Your task to perform on an android device: What is the news today? Image 0: 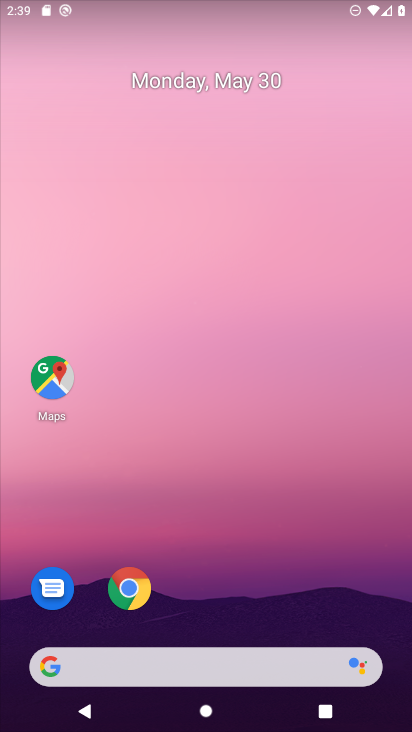
Step 0: drag from (248, 620) to (242, 244)
Your task to perform on an android device: What is the news today? Image 1: 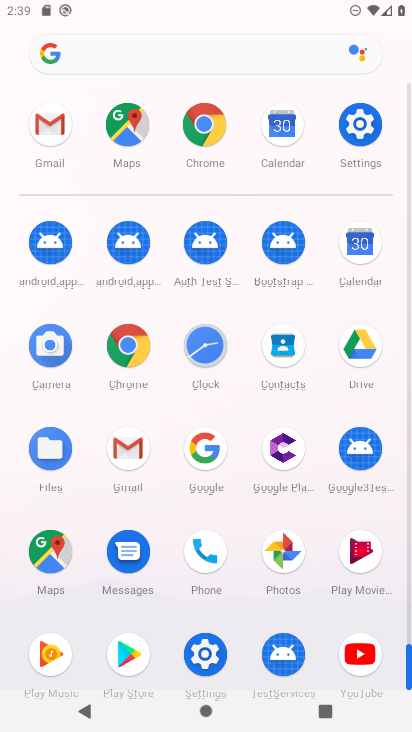
Step 1: click (50, 123)
Your task to perform on an android device: What is the news today? Image 2: 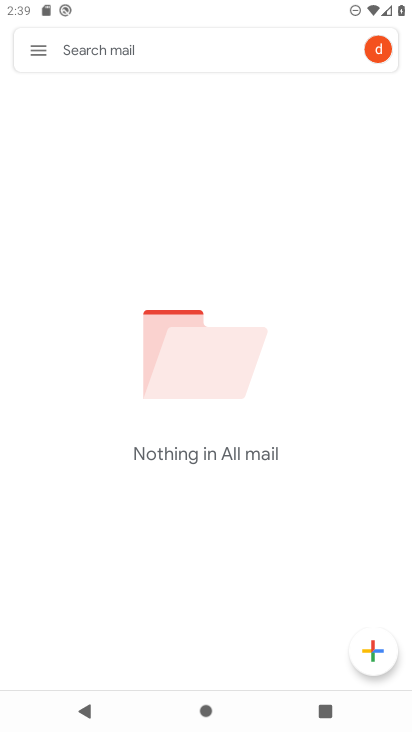
Step 2: press home button
Your task to perform on an android device: What is the news today? Image 3: 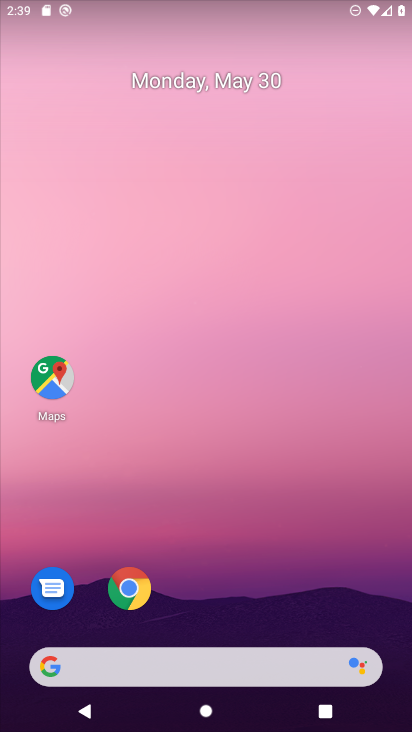
Step 3: click (139, 579)
Your task to perform on an android device: What is the news today? Image 4: 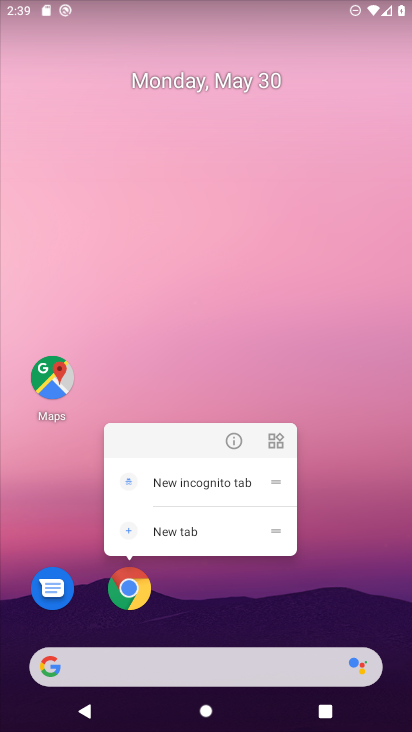
Step 4: click (135, 583)
Your task to perform on an android device: What is the news today? Image 5: 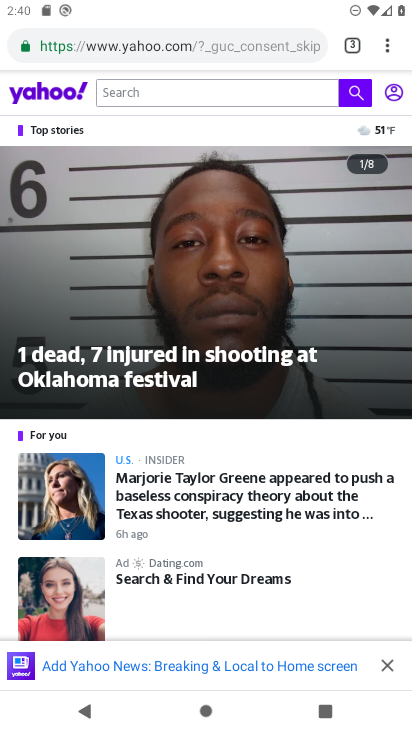
Step 5: click (387, 44)
Your task to perform on an android device: What is the news today? Image 6: 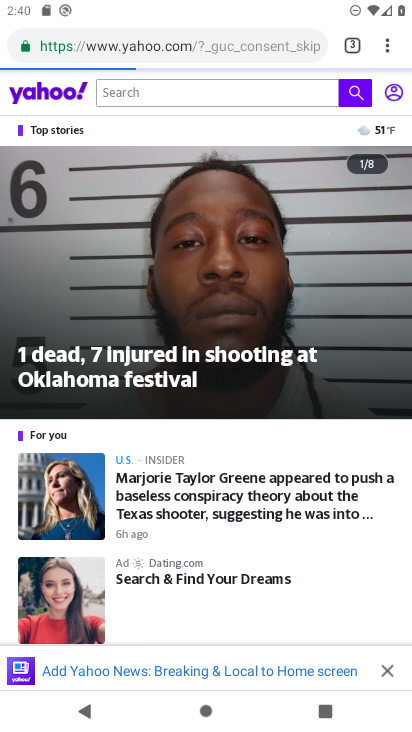
Step 6: click (382, 45)
Your task to perform on an android device: What is the news today? Image 7: 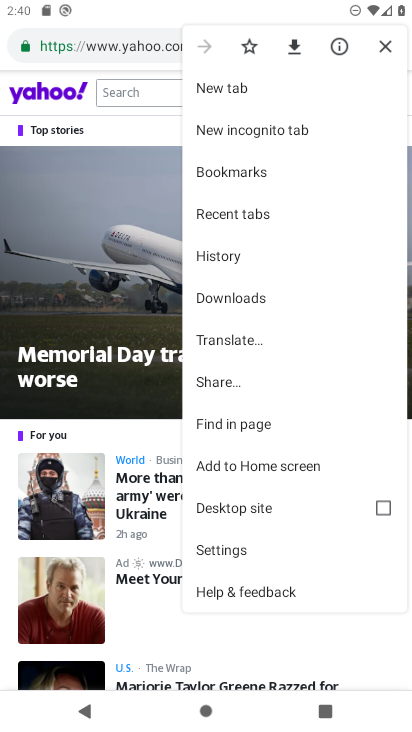
Step 7: click (274, 80)
Your task to perform on an android device: What is the news today? Image 8: 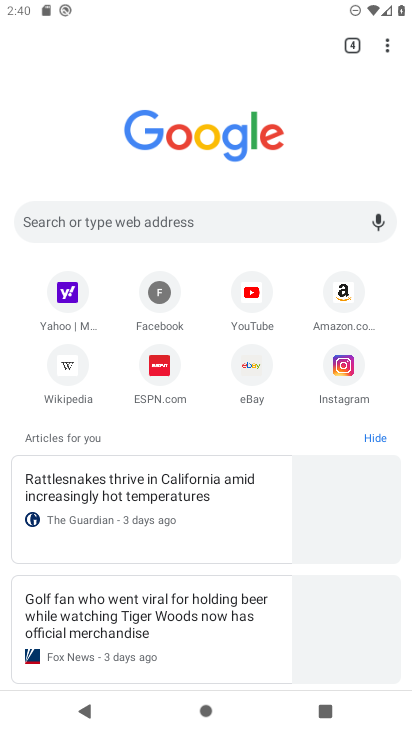
Step 8: click (340, 726)
Your task to perform on an android device: What is the news today? Image 9: 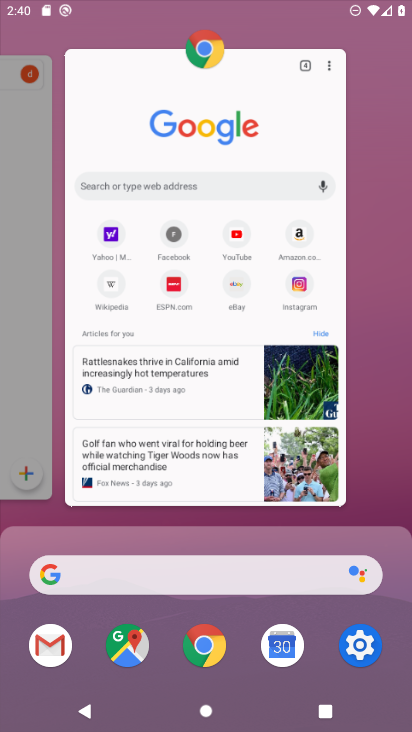
Step 9: click (189, 180)
Your task to perform on an android device: What is the news today? Image 10: 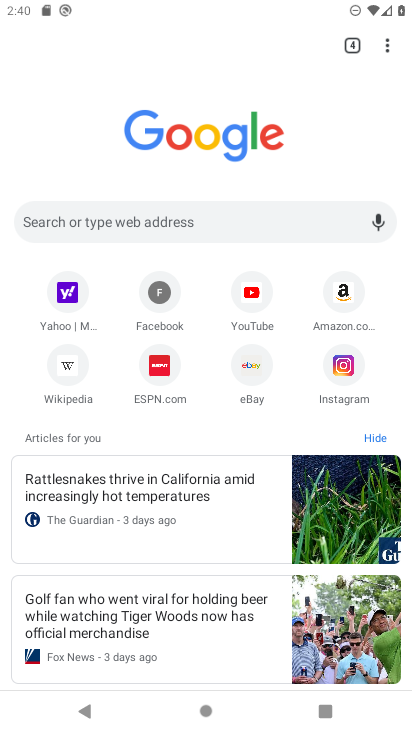
Step 10: click (192, 214)
Your task to perform on an android device: What is the news today? Image 11: 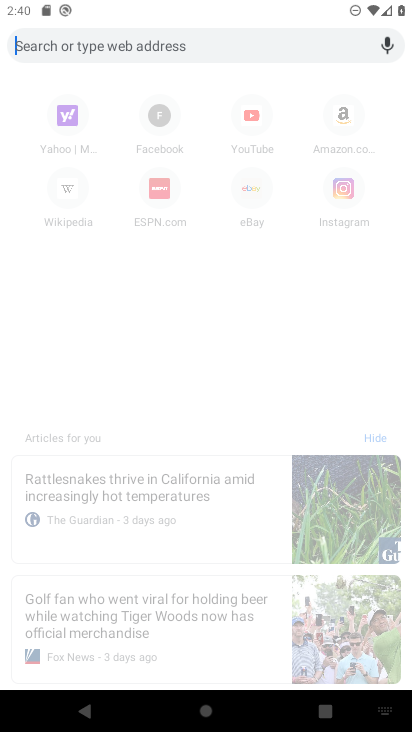
Step 11: type "What is the news today?"
Your task to perform on an android device: What is the news today? Image 12: 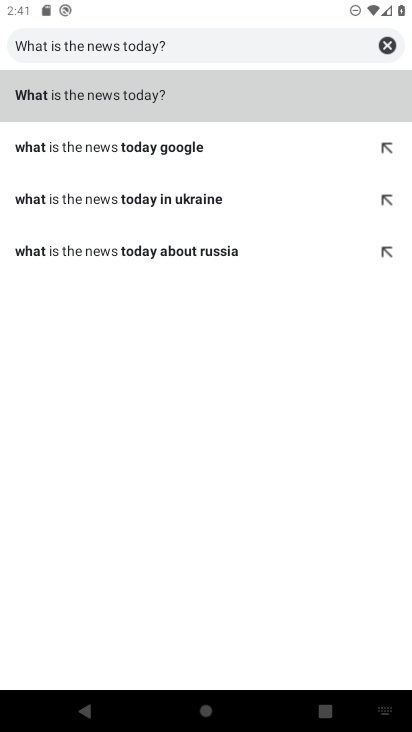
Step 12: click (191, 87)
Your task to perform on an android device: What is the news today? Image 13: 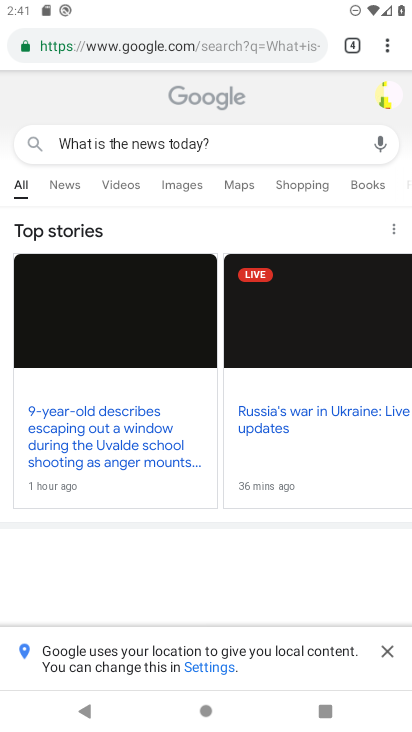
Step 13: task complete